Your task to perform on an android device: delete the emails in spam in the gmail app Image 0: 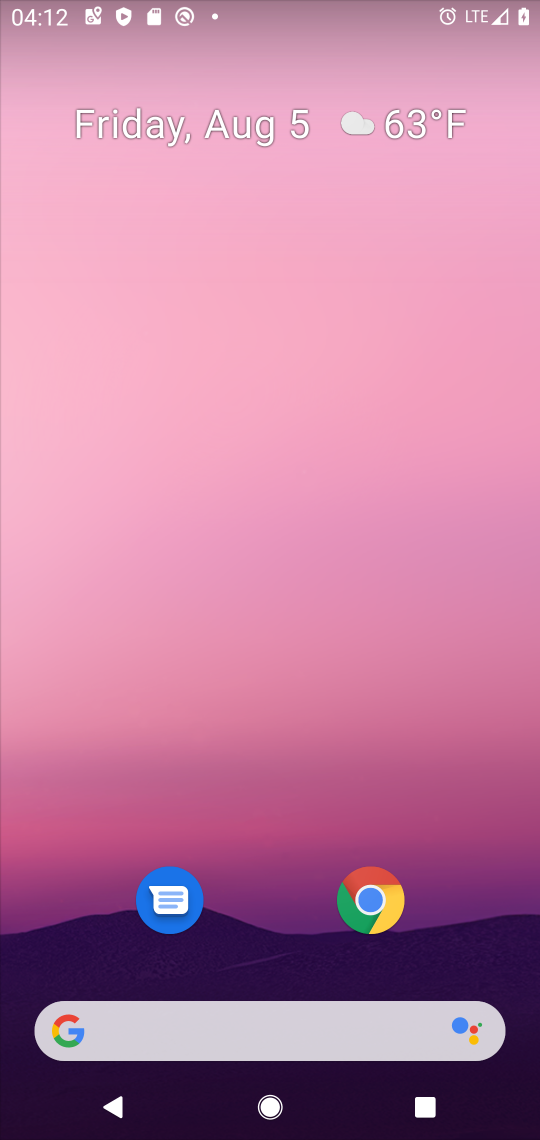
Step 0: drag from (244, 973) to (386, 18)
Your task to perform on an android device: delete the emails in spam in the gmail app Image 1: 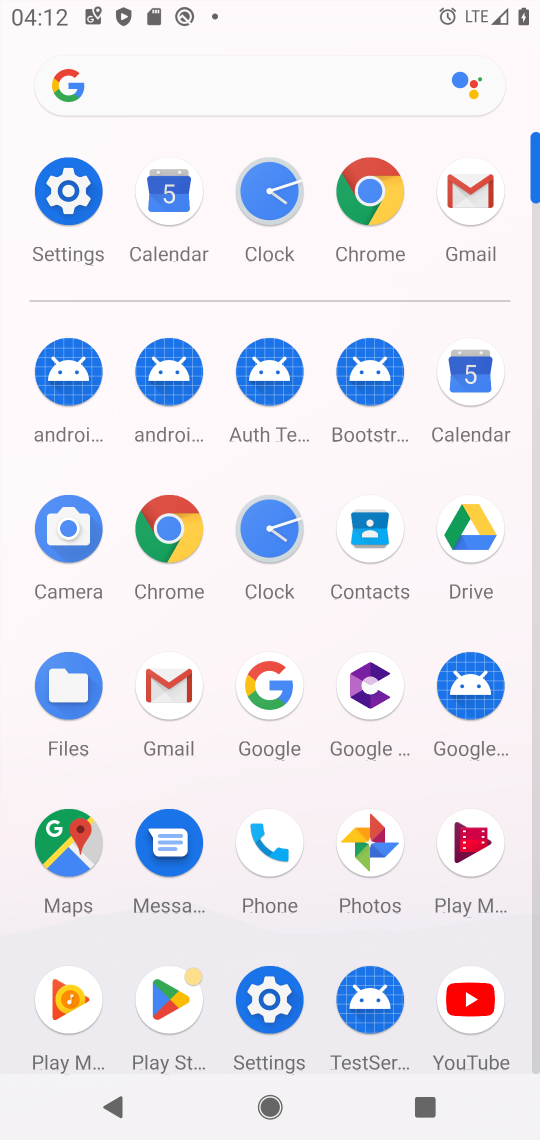
Step 1: click (485, 191)
Your task to perform on an android device: delete the emails in spam in the gmail app Image 2: 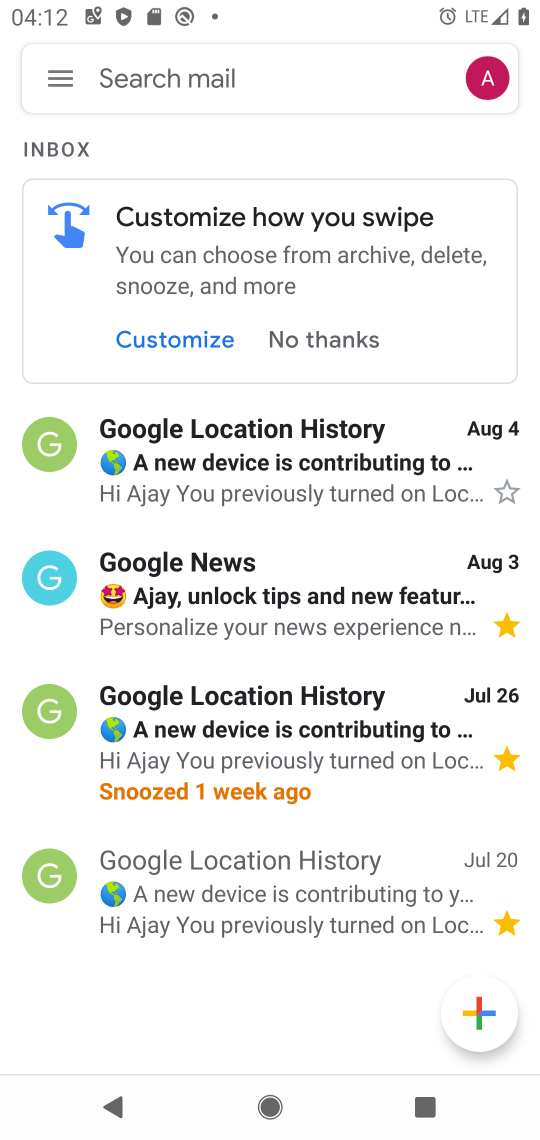
Step 2: click (72, 80)
Your task to perform on an android device: delete the emails in spam in the gmail app Image 3: 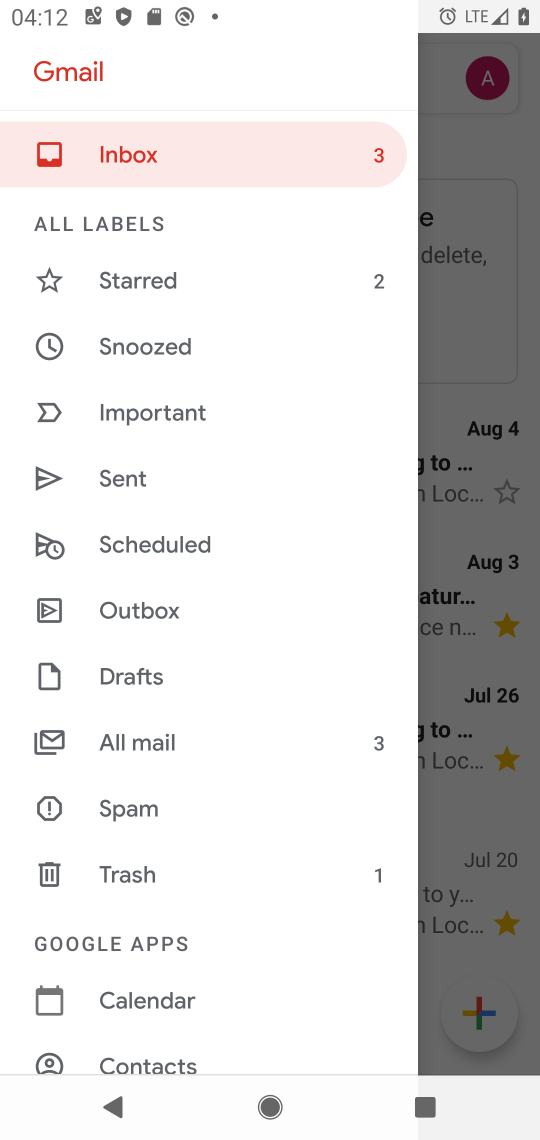
Step 3: click (158, 799)
Your task to perform on an android device: delete the emails in spam in the gmail app Image 4: 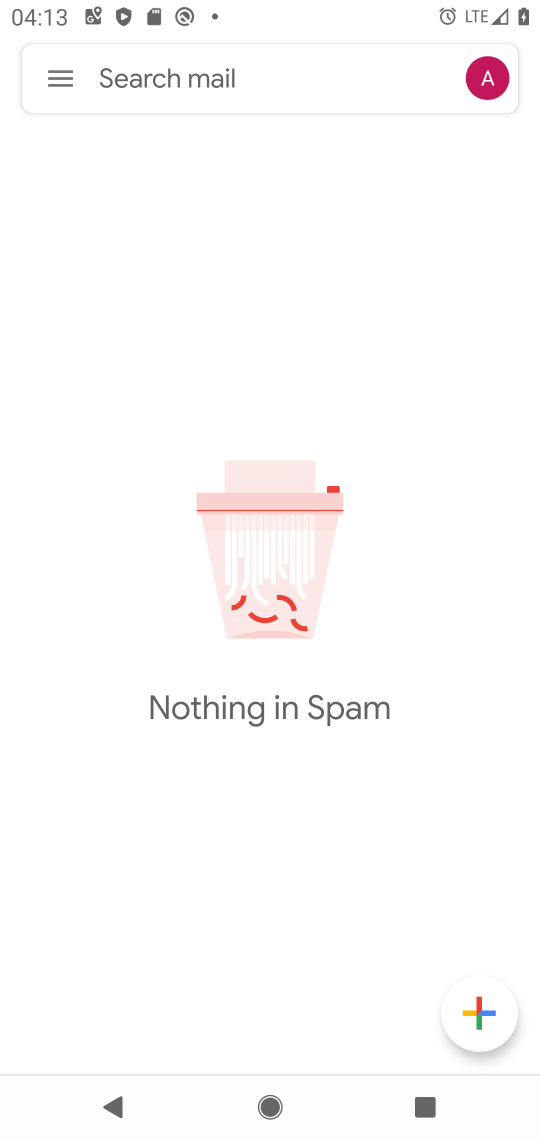
Step 4: task complete